Your task to perform on an android device: stop showing notifications on the lock screen Image 0: 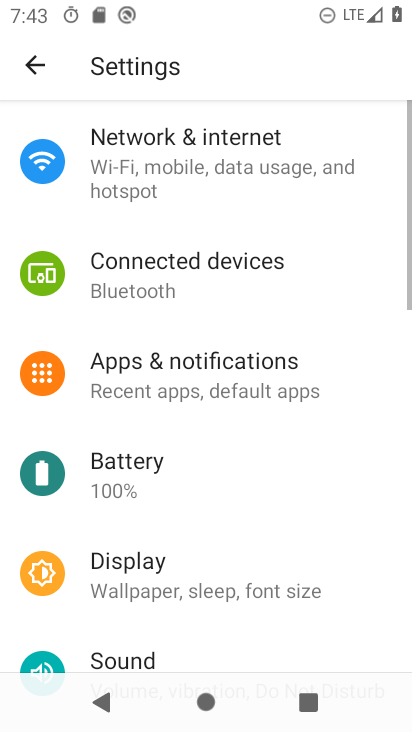
Step 0: press home button
Your task to perform on an android device: stop showing notifications on the lock screen Image 1: 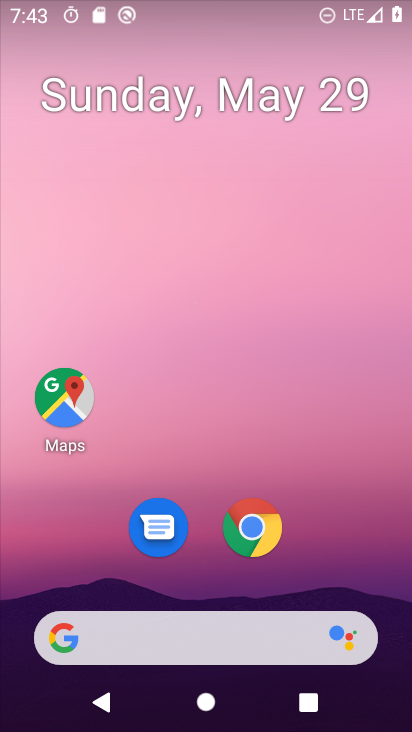
Step 1: drag from (386, 644) to (290, 79)
Your task to perform on an android device: stop showing notifications on the lock screen Image 2: 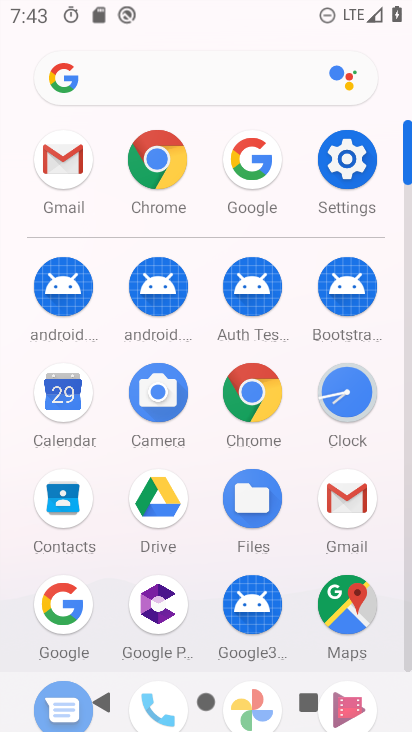
Step 2: click (359, 148)
Your task to perform on an android device: stop showing notifications on the lock screen Image 3: 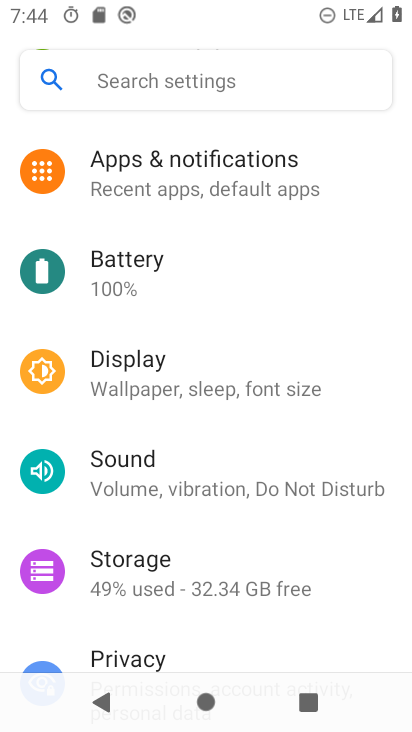
Step 3: click (202, 198)
Your task to perform on an android device: stop showing notifications on the lock screen Image 4: 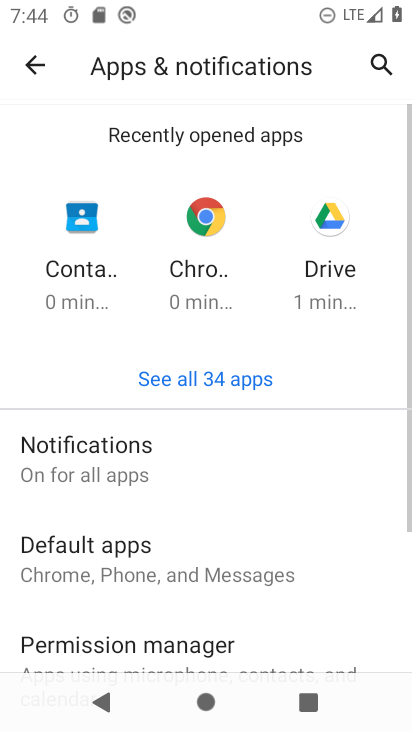
Step 4: click (182, 468)
Your task to perform on an android device: stop showing notifications on the lock screen Image 5: 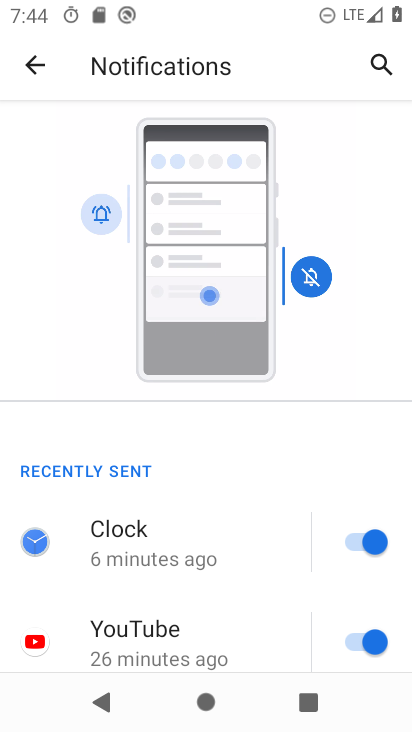
Step 5: drag from (172, 626) to (210, 22)
Your task to perform on an android device: stop showing notifications on the lock screen Image 6: 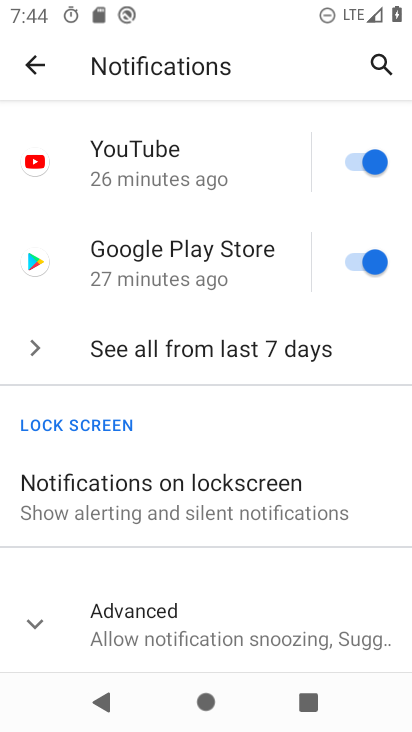
Step 6: click (243, 505)
Your task to perform on an android device: stop showing notifications on the lock screen Image 7: 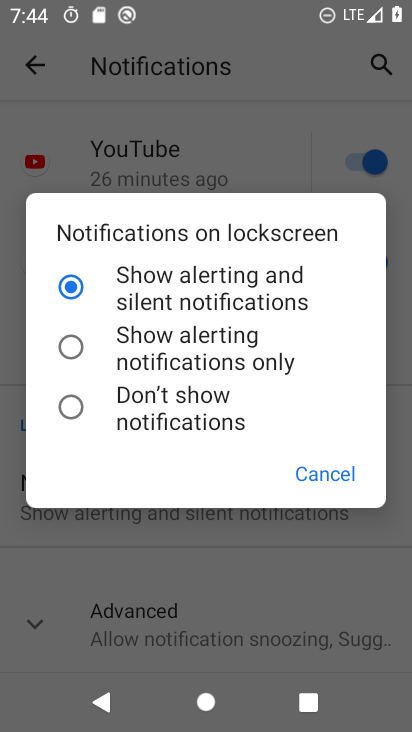
Step 7: click (79, 397)
Your task to perform on an android device: stop showing notifications on the lock screen Image 8: 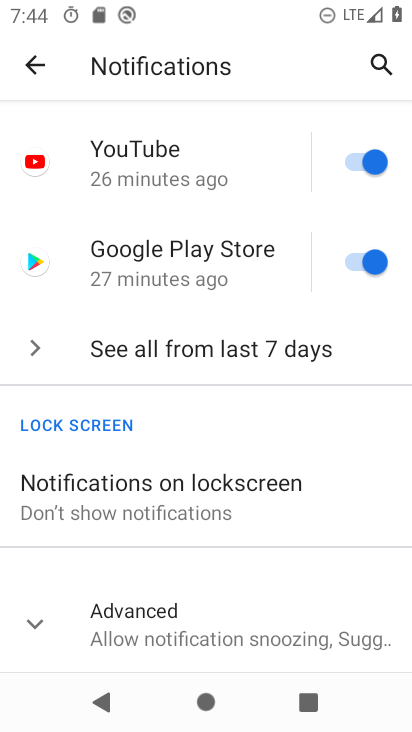
Step 8: task complete